Your task to perform on an android device: Go to CNN.com Image 0: 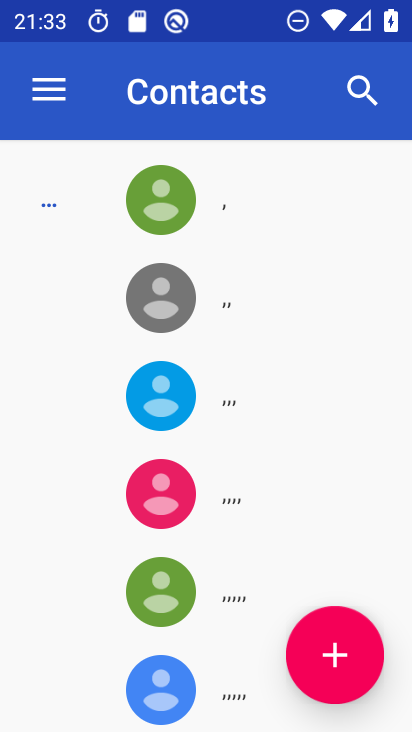
Step 0: press home button
Your task to perform on an android device: Go to CNN.com Image 1: 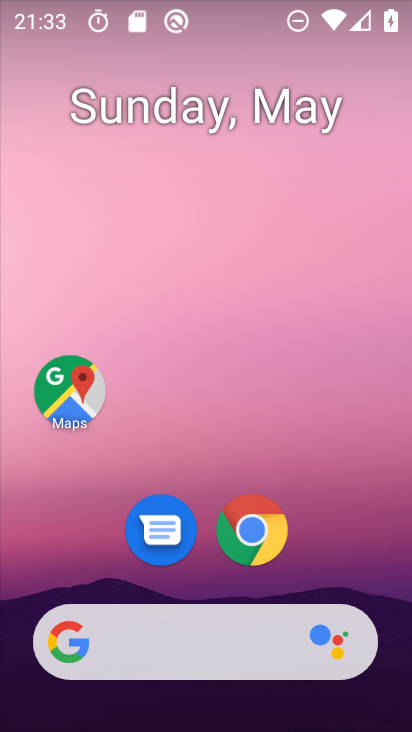
Step 1: drag from (197, 689) to (100, 104)
Your task to perform on an android device: Go to CNN.com Image 2: 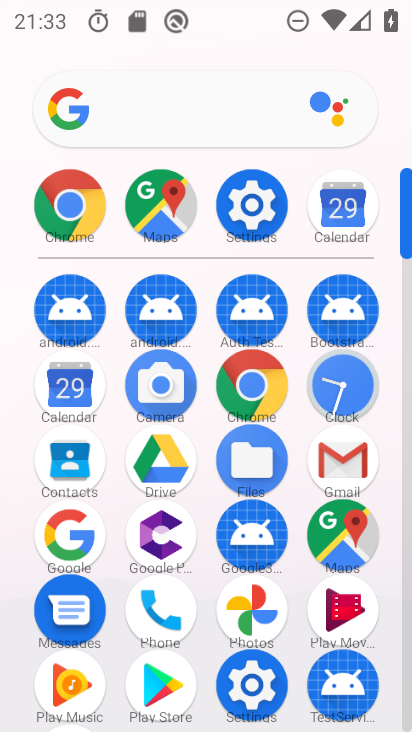
Step 2: click (67, 219)
Your task to perform on an android device: Go to CNN.com Image 3: 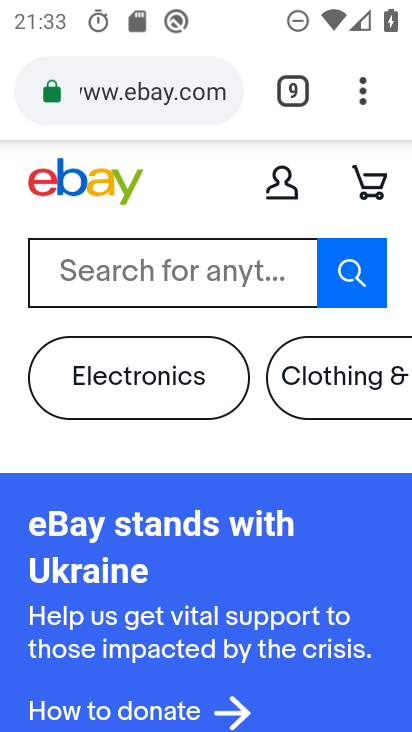
Step 3: click (105, 91)
Your task to perform on an android device: Go to CNN.com Image 4: 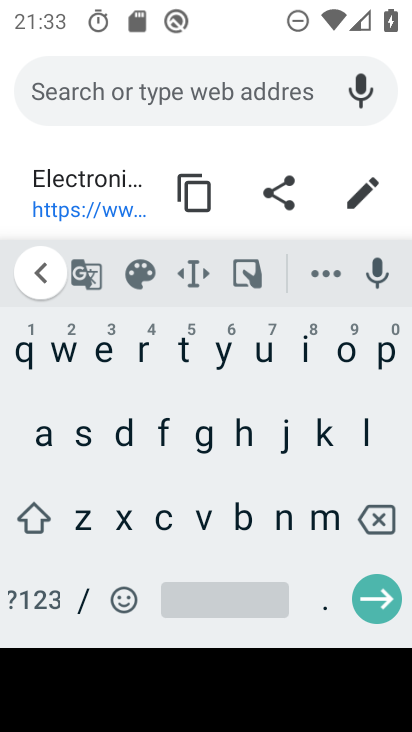
Step 4: click (156, 521)
Your task to perform on an android device: Go to CNN.com Image 5: 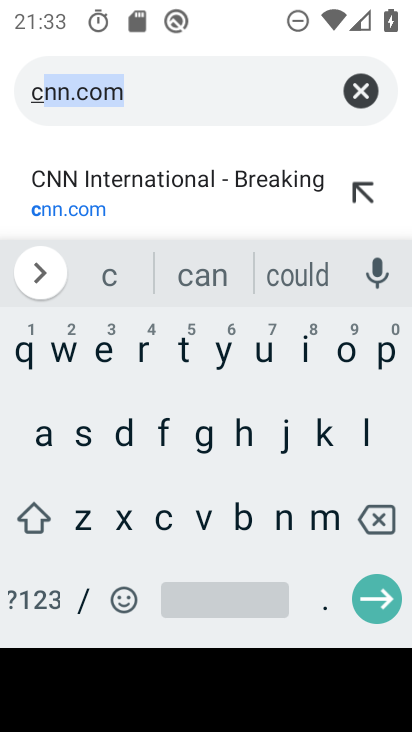
Step 5: click (140, 102)
Your task to perform on an android device: Go to CNN.com Image 6: 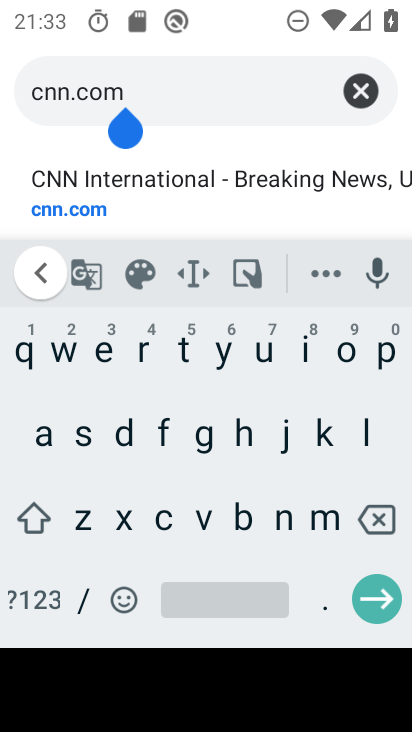
Step 6: click (383, 593)
Your task to perform on an android device: Go to CNN.com Image 7: 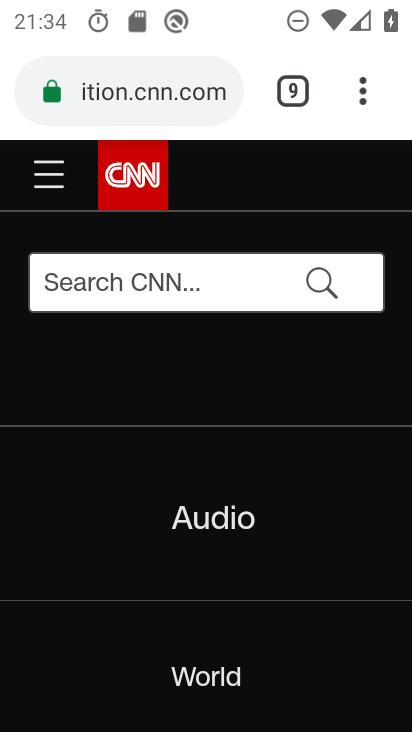
Step 7: task complete